Your task to perform on an android device: turn off priority inbox in the gmail app Image 0: 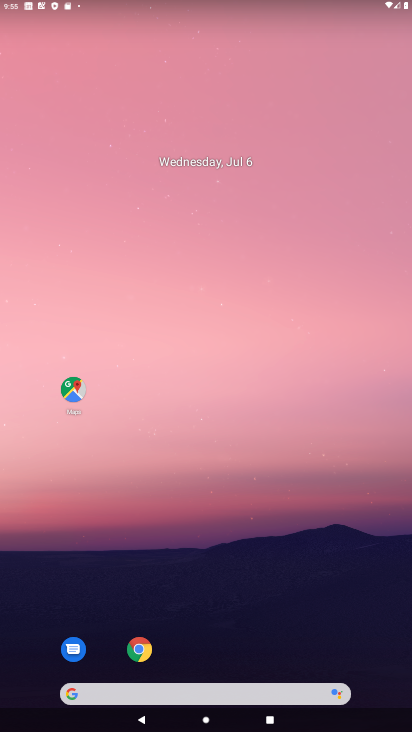
Step 0: drag from (209, 687) to (117, 113)
Your task to perform on an android device: turn off priority inbox in the gmail app Image 1: 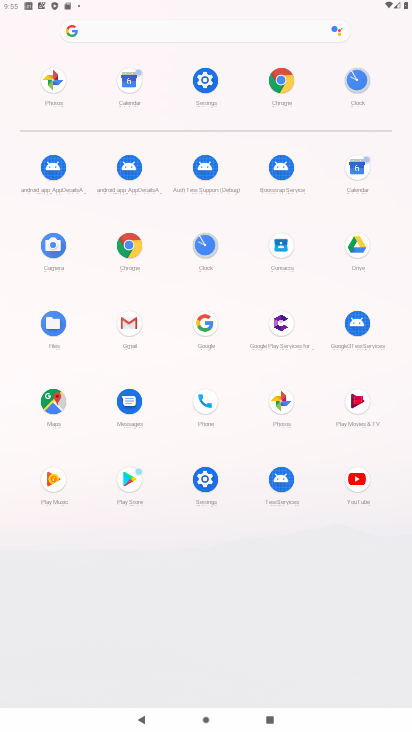
Step 1: click (130, 335)
Your task to perform on an android device: turn off priority inbox in the gmail app Image 2: 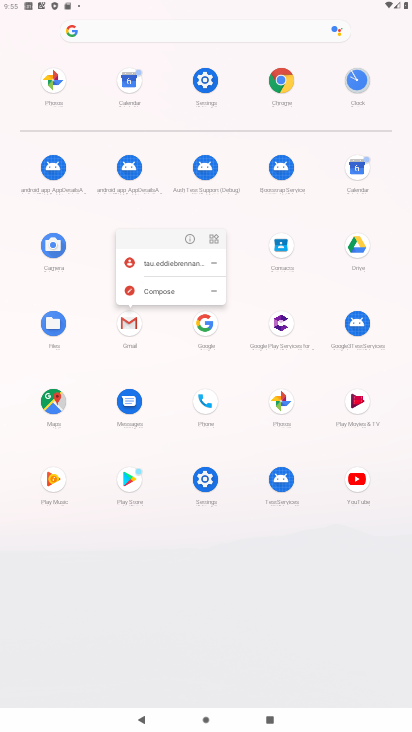
Step 2: click (131, 331)
Your task to perform on an android device: turn off priority inbox in the gmail app Image 3: 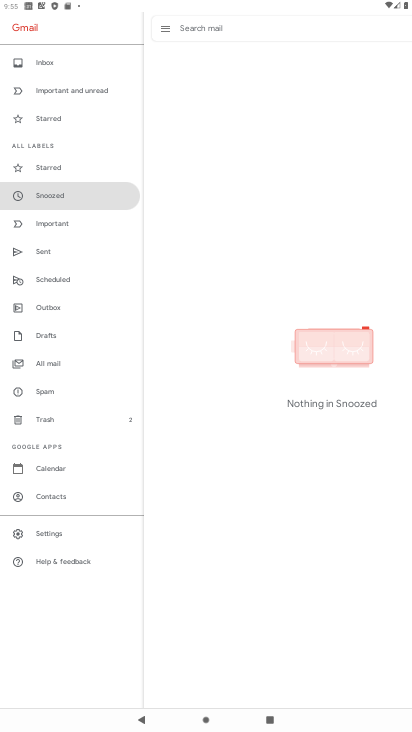
Step 3: click (52, 528)
Your task to perform on an android device: turn off priority inbox in the gmail app Image 4: 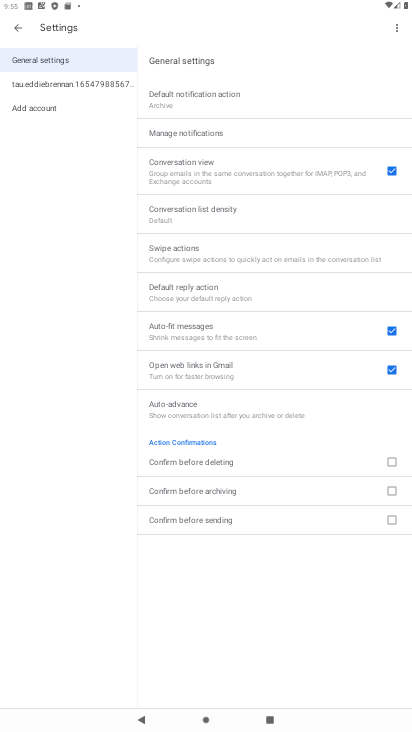
Step 4: click (72, 84)
Your task to perform on an android device: turn off priority inbox in the gmail app Image 5: 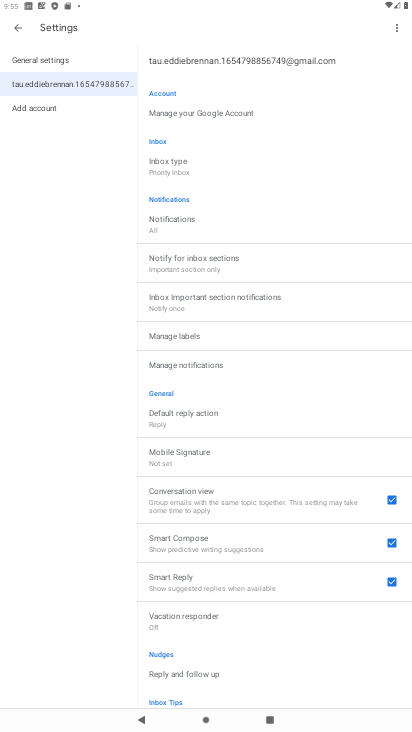
Step 5: click (202, 169)
Your task to perform on an android device: turn off priority inbox in the gmail app Image 6: 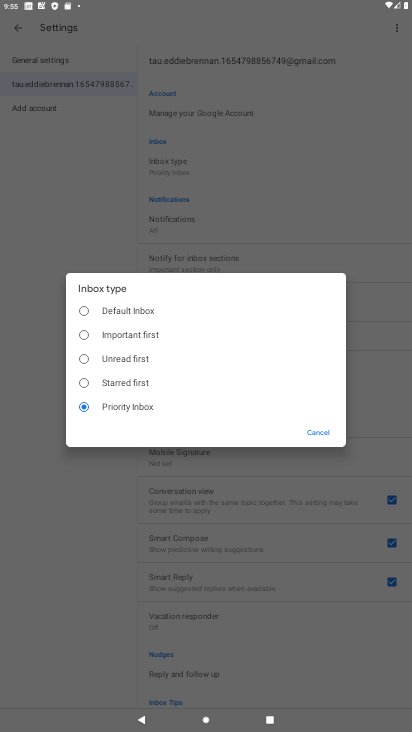
Step 6: click (104, 309)
Your task to perform on an android device: turn off priority inbox in the gmail app Image 7: 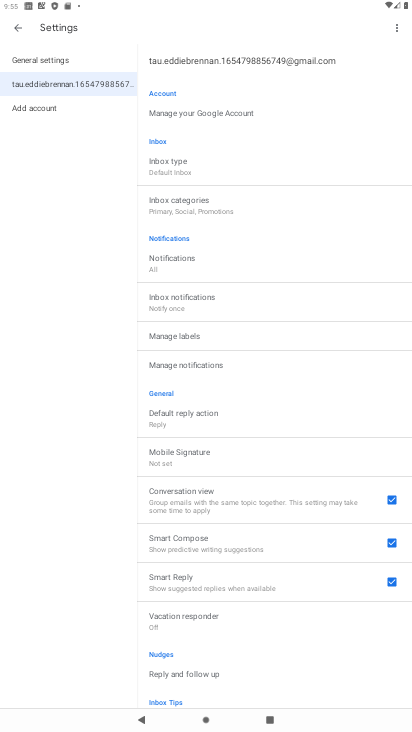
Step 7: task complete